Your task to perform on an android device: Go to network settings Image 0: 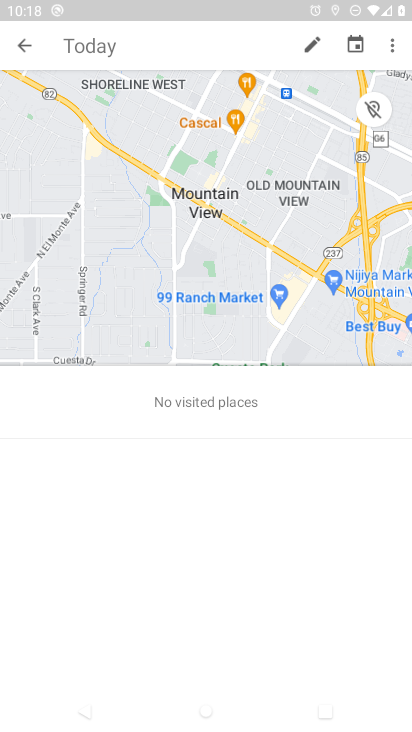
Step 0: click (125, 601)
Your task to perform on an android device: Go to network settings Image 1: 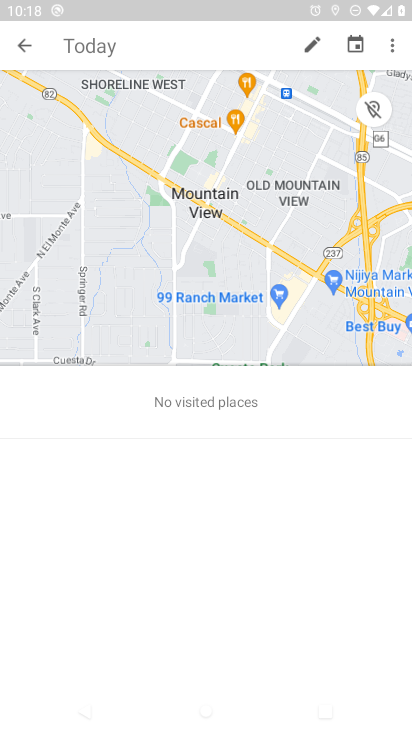
Step 1: press home button
Your task to perform on an android device: Go to network settings Image 2: 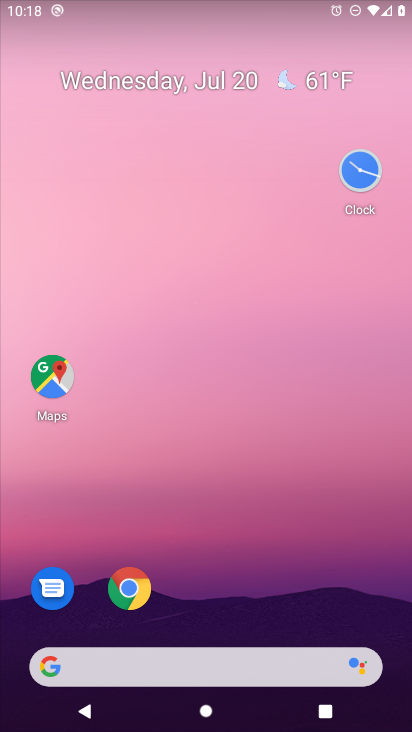
Step 2: drag from (44, 693) to (215, 206)
Your task to perform on an android device: Go to network settings Image 3: 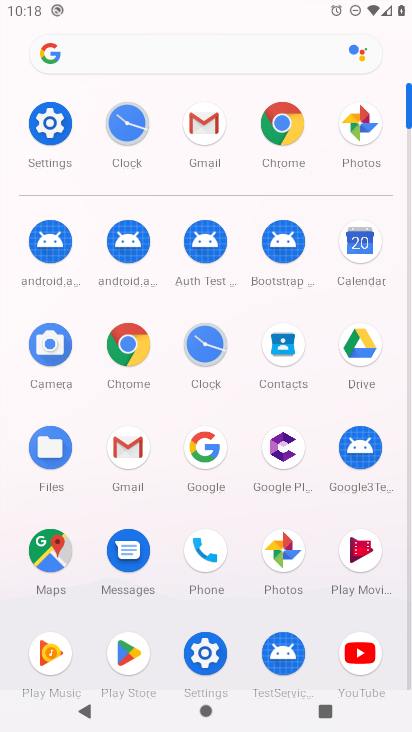
Step 3: click (195, 647)
Your task to perform on an android device: Go to network settings Image 4: 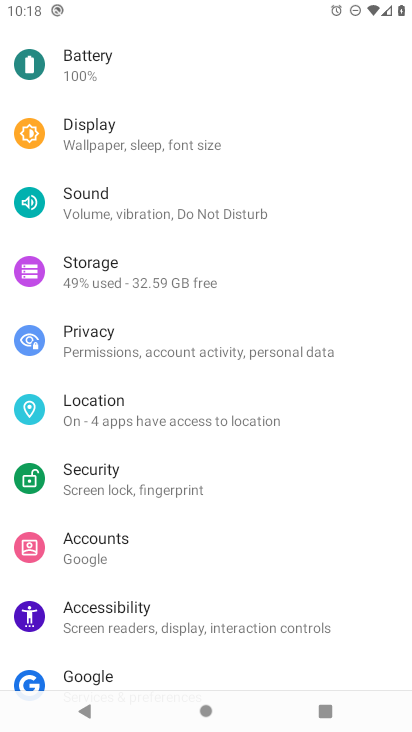
Step 4: drag from (241, 69) to (261, 562)
Your task to perform on an android device: Go to network settings Image 5: 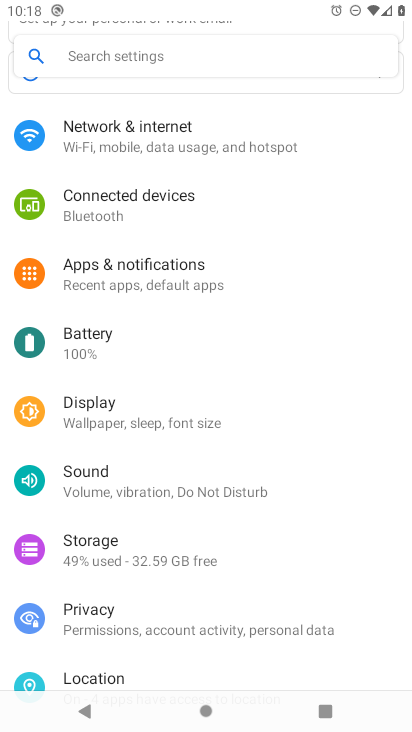
Step 5: click (157, 133)
Your task to perform on an android device: Go to network settings Image 6: 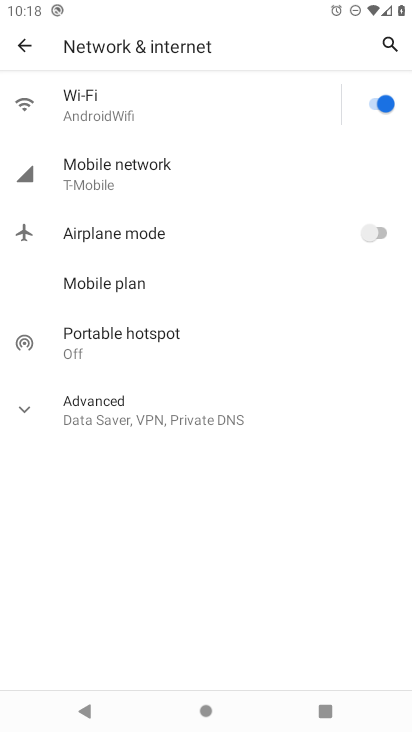
Step 6: task complete